Your task to perform on an android device: Search for "amazon basics triple a" on ebay, select the first entry, and add it to the cart. Image 0: 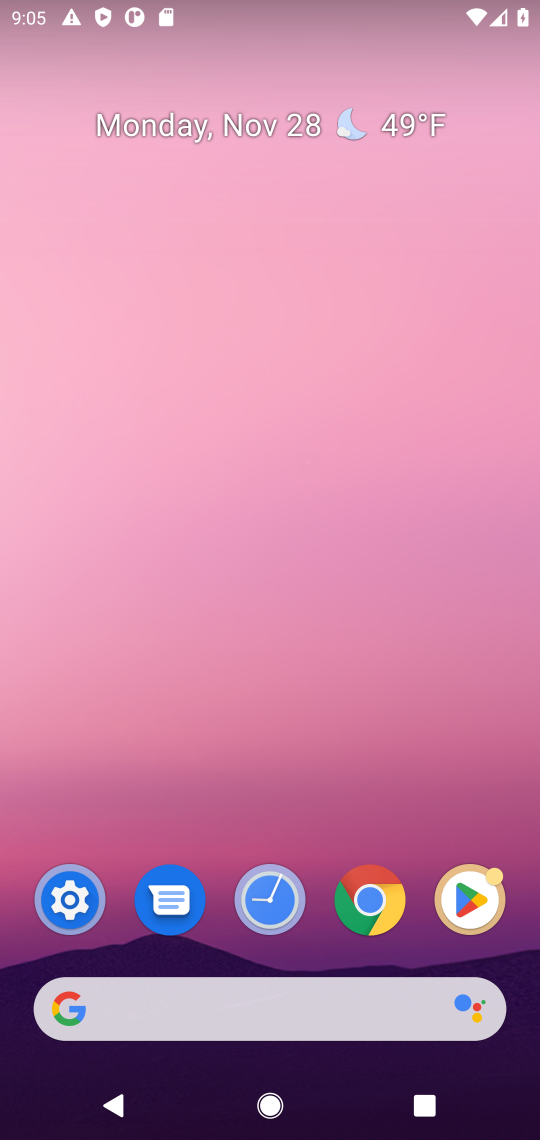
Step 0: click (281, 1034)
Your task to perform on an android device: Search for "amazon basics triple a" on ebay, select the first entry, and add it to the cart. Image 1: 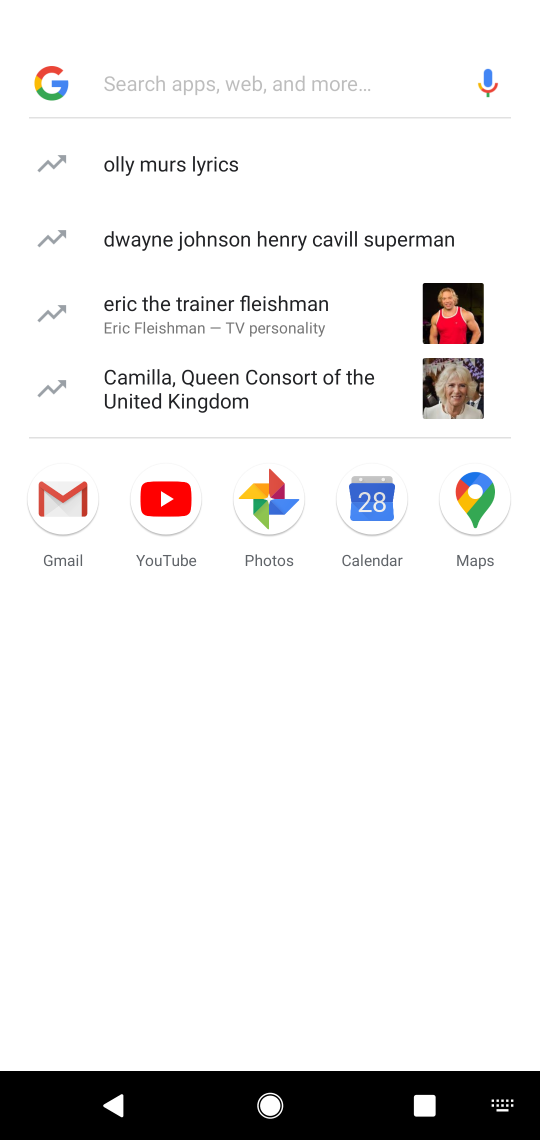
Step 1: type "ebay.com"
Your task to perform on an android device: Search for "amazon basics triple a" on ebay, select the first entry, and add it to the cart. Image 2: 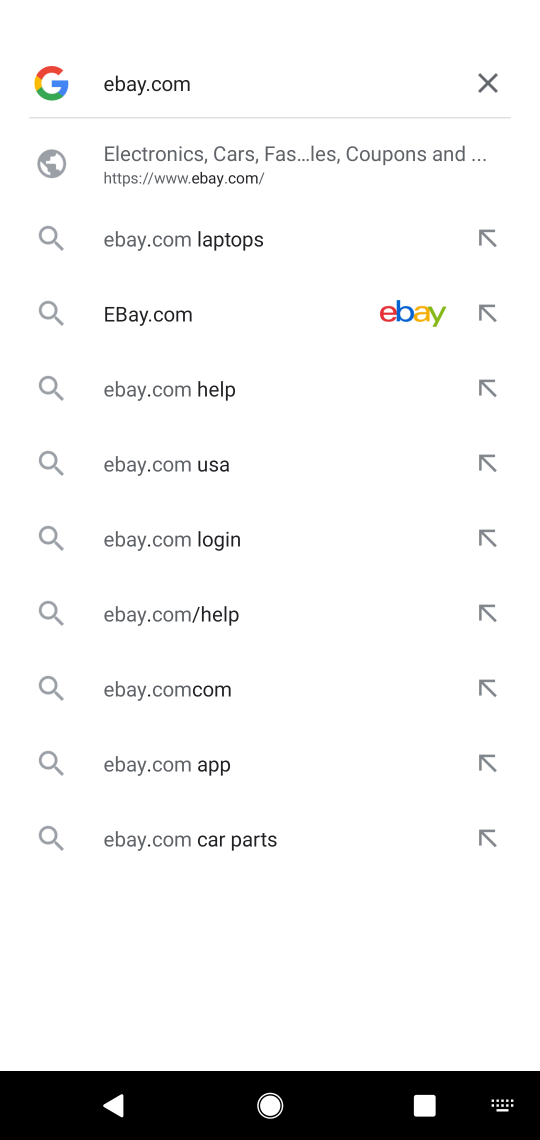
Step 2: click (201, 168)
Your task to perform on an android device: Search for "amazon basics triple a" on ebay, select the first entry, and add it to the cart. Image 3: 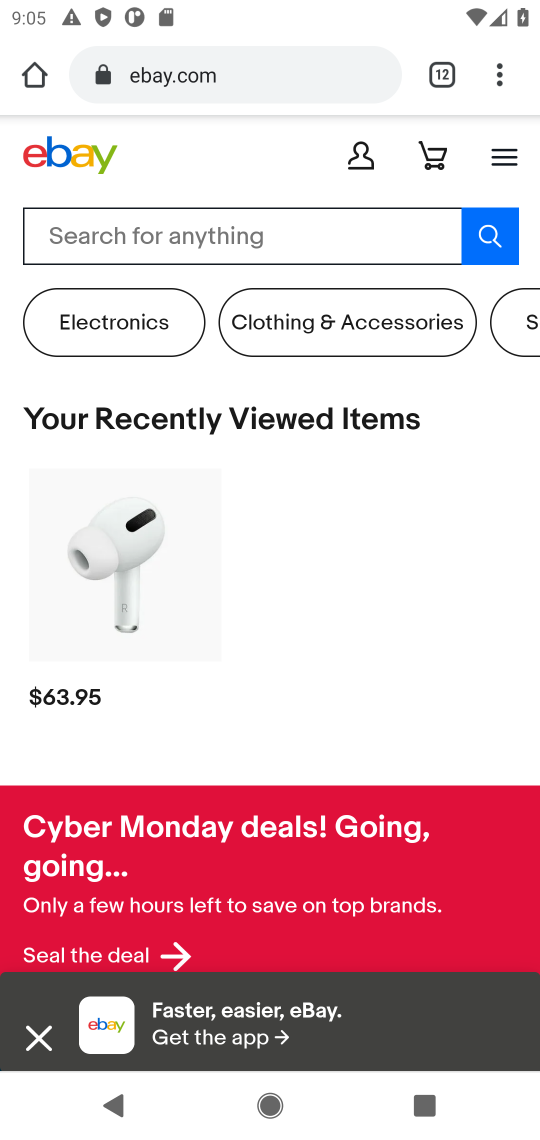
Step 3: click (85, 533)
Your task to perform on an android device: Search for "amazon basics triple a" on ebay, select the first entry, and add it to the cart. Image 4: 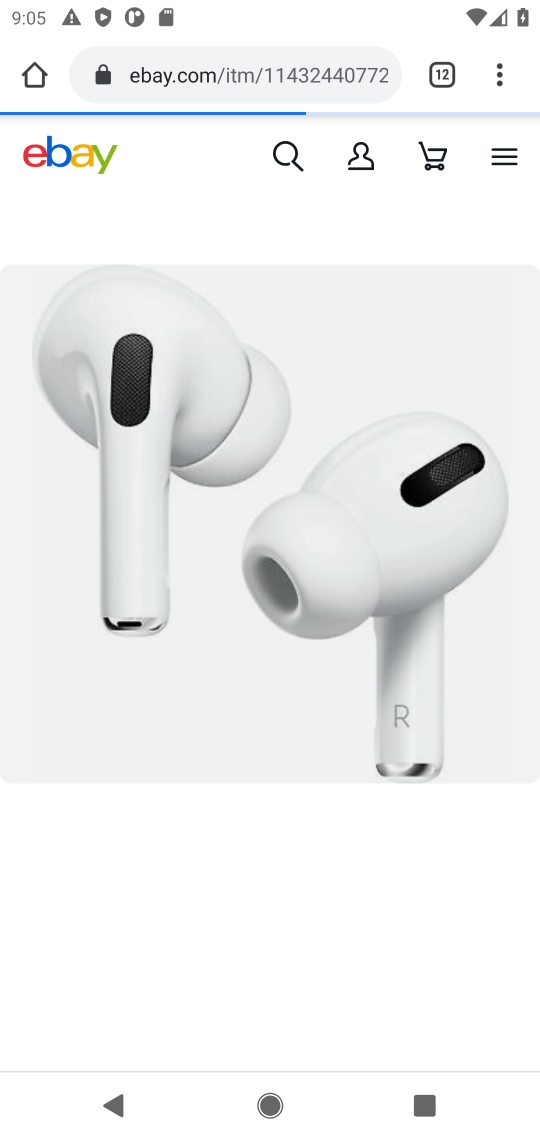
Step 4: task complete